Your task to perform on an android device: Open Youtube and go to the subscriptions tab Image 0: 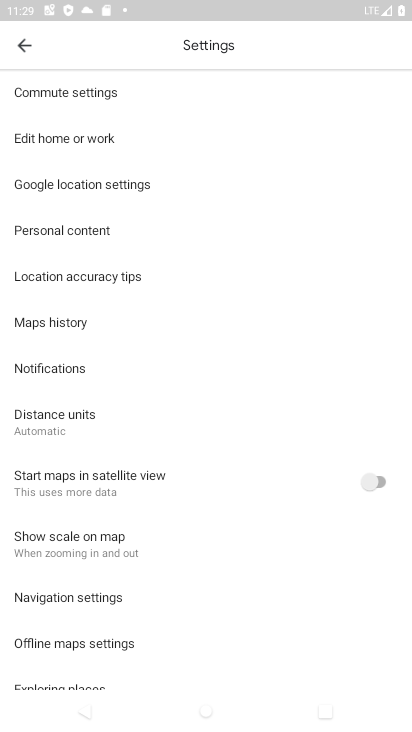
Step 0: press home button
Your task to perform on an android device: Open Youtube and go to the subscriptions tab Image 1: 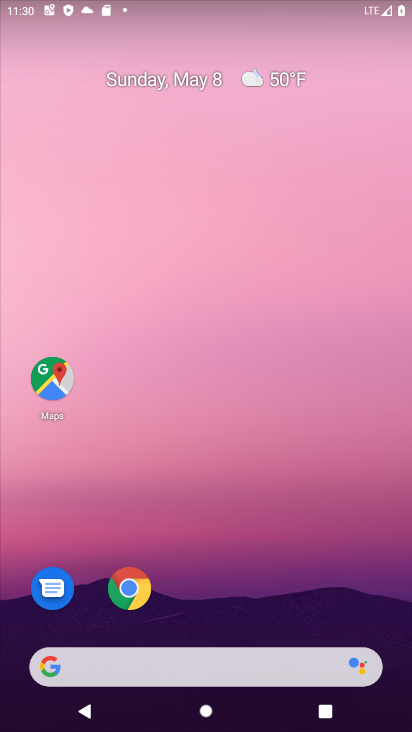
Step 1: drag from (273, 531) to (224, 147)
Your task to perform on an android device: Open Youtube and go to the subscriptions tab Image 2: 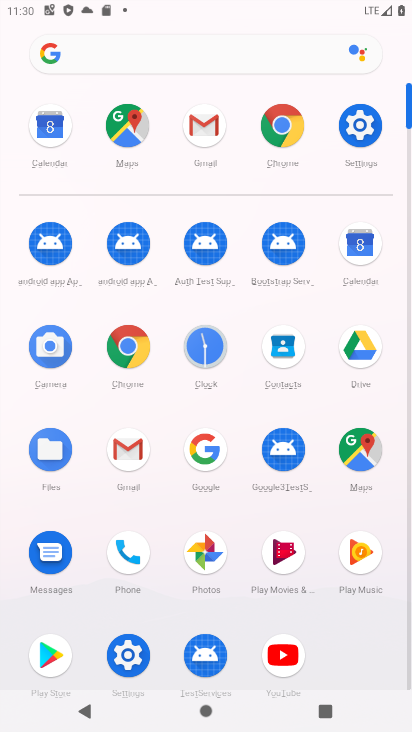
Step 2: click (283, 658)
Your task to perform on an android device: Open Youtube and go to the subscriptions tab Image 3: 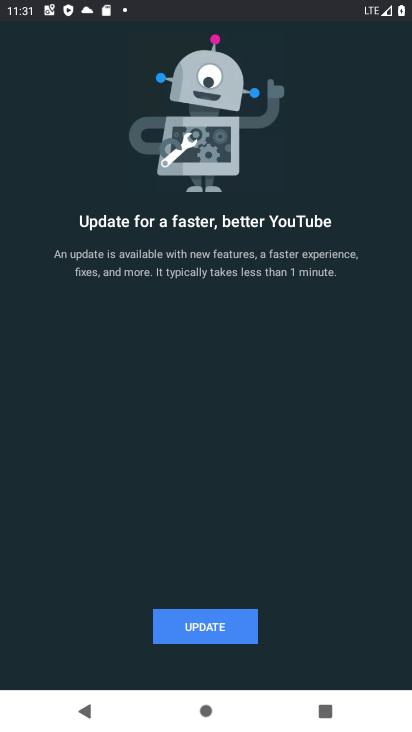
Step 3: click (238, 619)
Your task to perform on an android device: Open Youtube and go to the subscriptions tab Image 4: 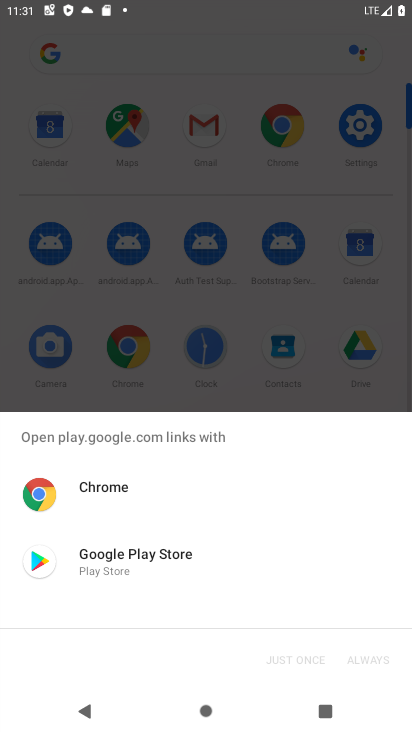
Step 4: click (86, 554)
Your task to perform on an android device: Open Youtube and go to the subscriptions tab Image 5: 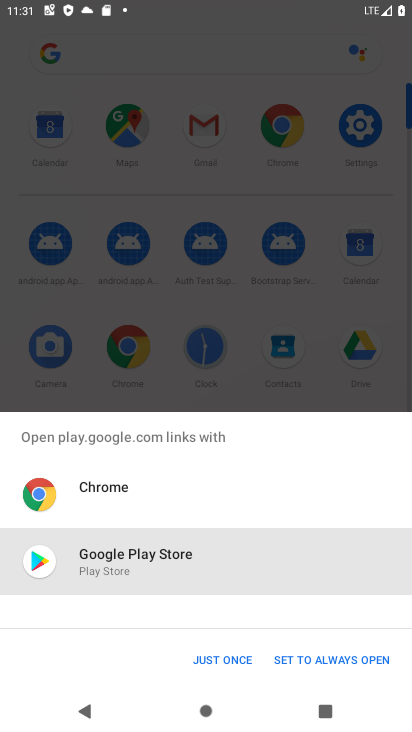
Step 5: click (210, 661)
Your task to perform on an android device: Open Youtube and go to the subscriptions tab Image 6: 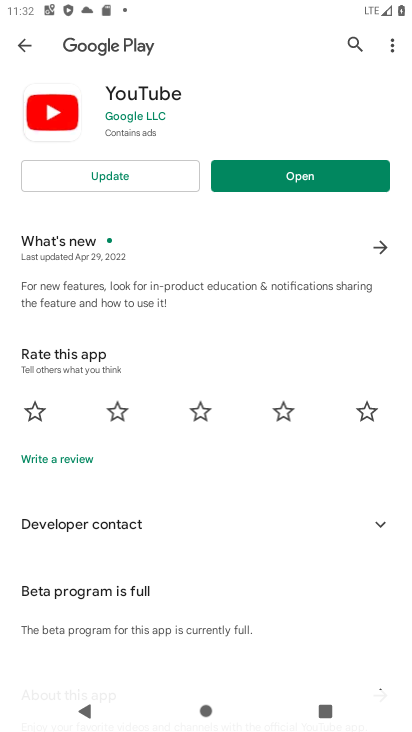
Step 6: click (107, 174)
Your task to perform on an android device: Open Youtube and go to the subscriptions tab Image 7: 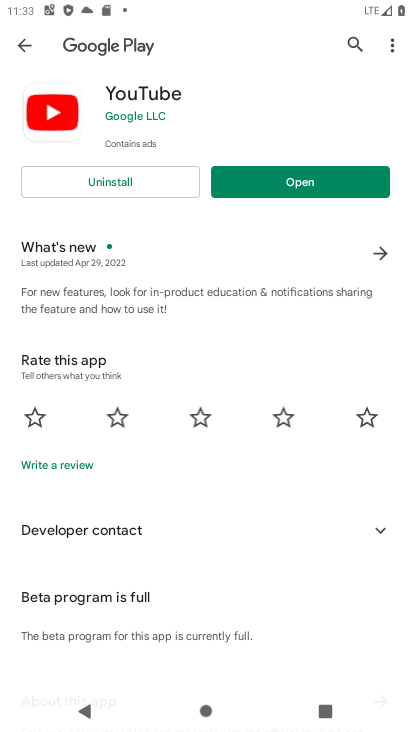
Step 7: click (302, 176)
Your task to perform on an android device: Open Youtube and go to the subscriptions tab Image 8: 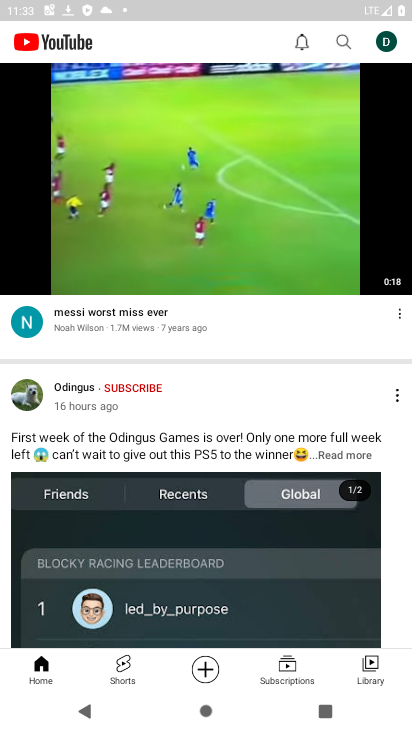
Step 8: click (282, 669)
Your task to perform on an android device: Open Youtube and go to the subscriptions tab Image 9: 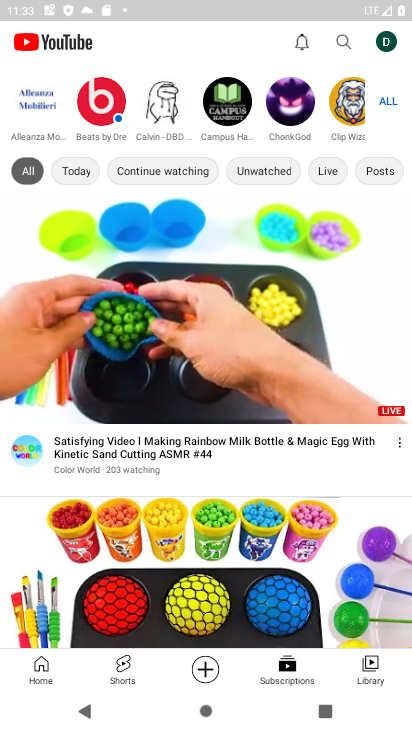
Step 9: task complete